Your task to perform on an android device: empty trash in google photos Image 0: 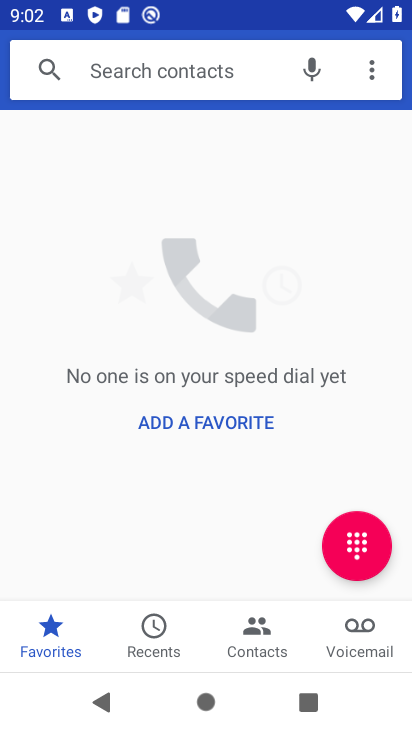
Step 0: press back button
Your task to perform on an android device: empty trash in google photos Image 1: 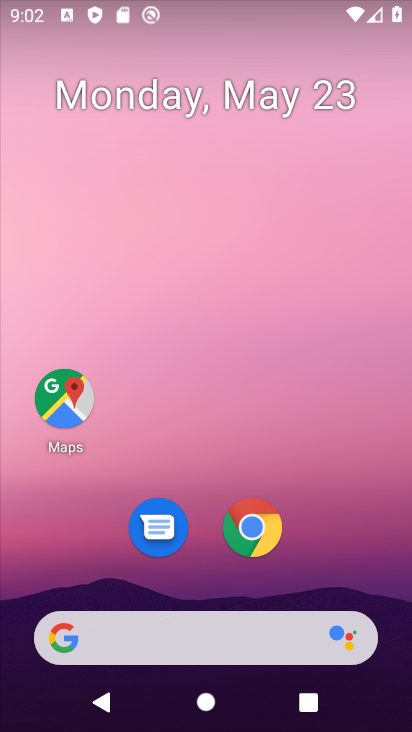
Step 1: drag from (381, 538) to (271, 17)
Your task to perform on an android device: empty trash in google photos Image 2: 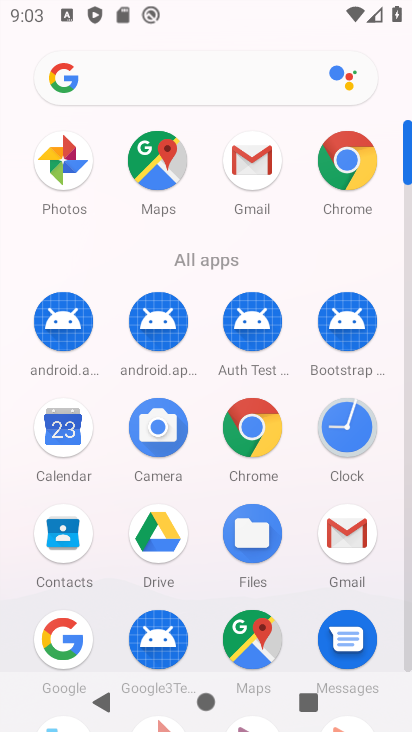
Step 2: drag from (13, 564) to (11, 171)
Your task to perform on an android device: empty trash in google photos Image 3: 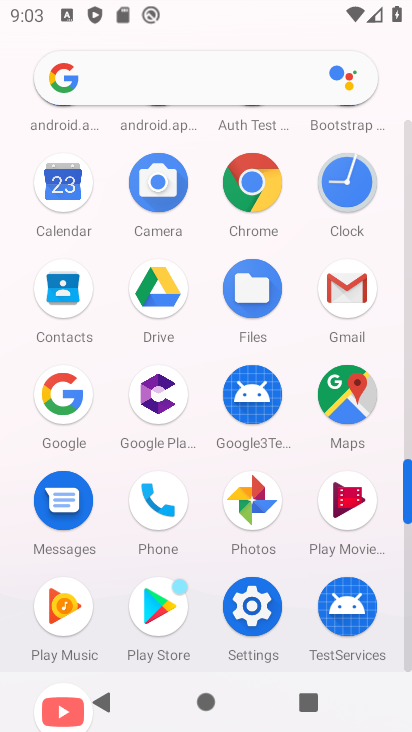
Step 3: click (250, 501)
Your task to perform on an android device: empty trash in google photos Image 4: 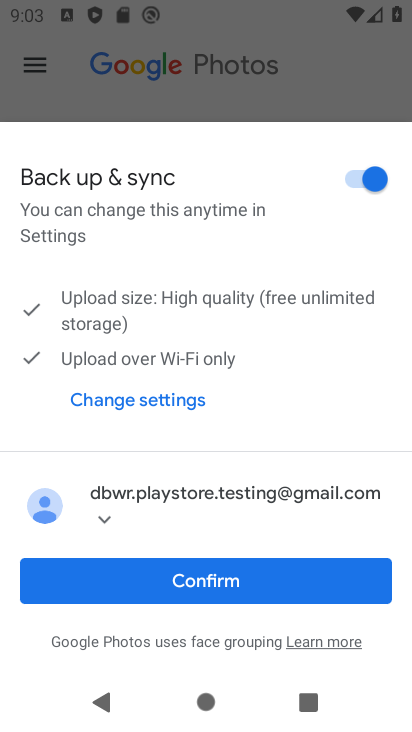
Step 4: click (208, 566)
Your task to perform on an android device: empty trash in google photos Image 5: 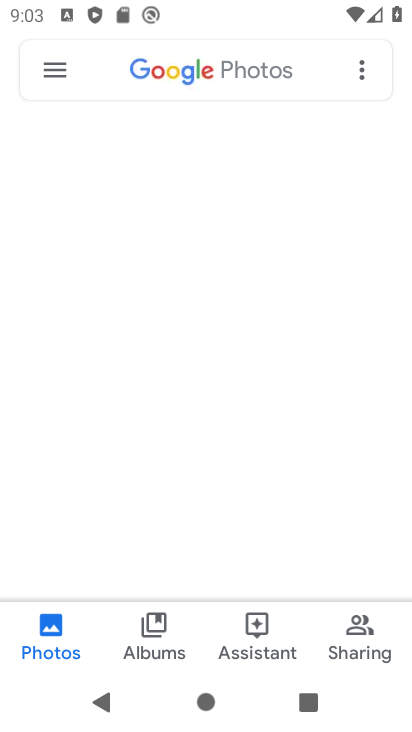
Step 5: click (24, 66)
Your task to perform on an android device: empty trash in google photos Image 6: 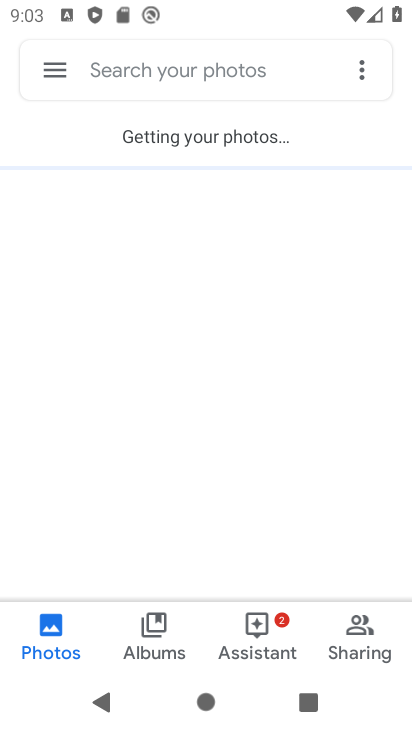
Step 6: click (45, 64)
Your task to perform on an android device: empty trash in google photos Image 7: 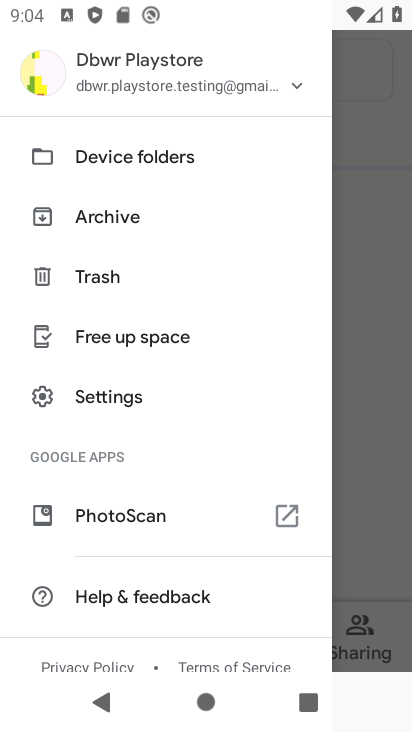
Step 7: click (130, 260)
Your task to perform on an android device: empty trash in google photos Image 8: 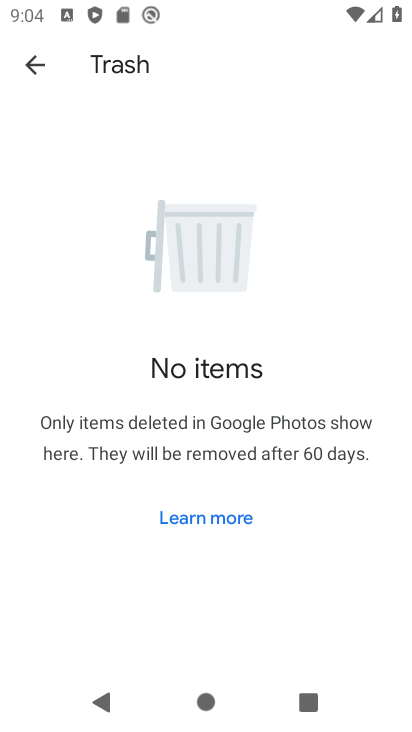
Step 8: task complete